Your task to perform on an android device: Go to ESPN.com Image 0: 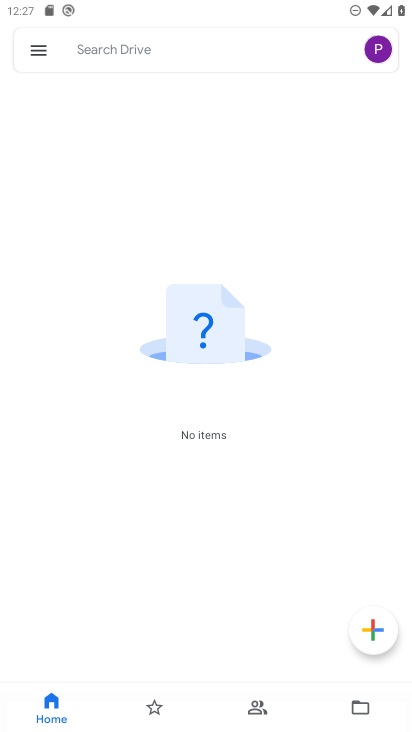
Step 0: press home button
Your task to perform on an android device: Go to ESPN.com Image 1: 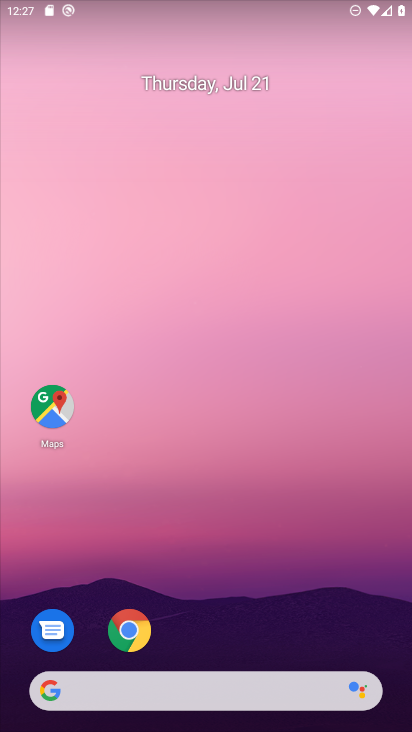
Step 1: drag from (183, 648) to (255, 174)
Your task to perform on an android device: Go to ESPN.com Image 2: 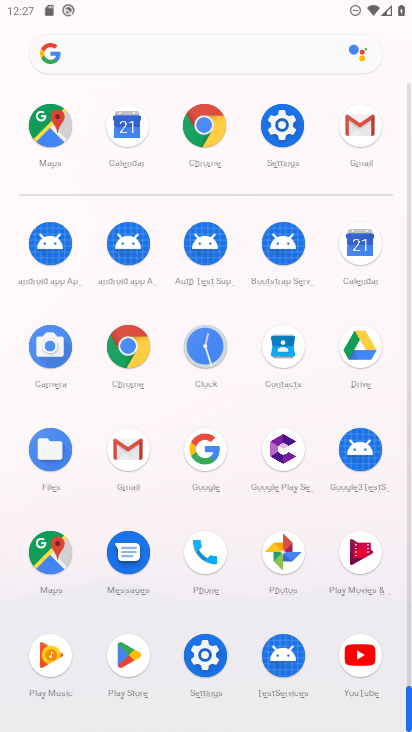
Step 2: click (195, 122)
Your task to perform on an android device: Go to ESPN.com Image 3: 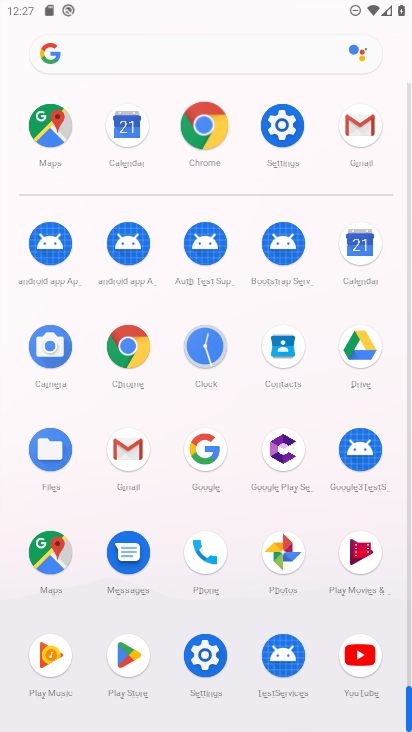
Step 3: click (195, 122)
Your task to perform on an android device: Go to ESPN.com Image 4: 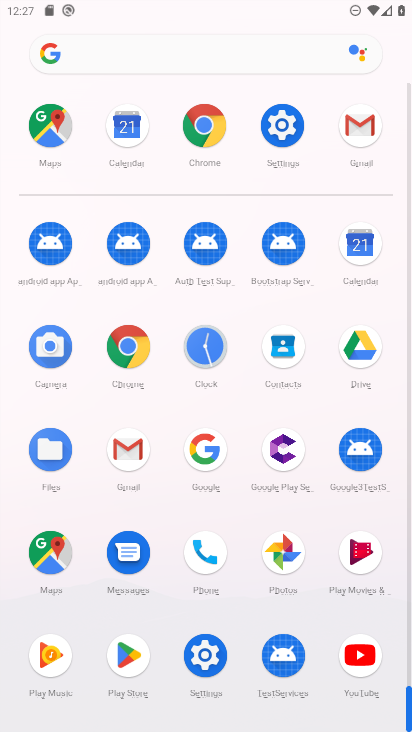
Step 4: click (210, 121)
Your task to perform on an android device: Go to ESPN.com Image 5: 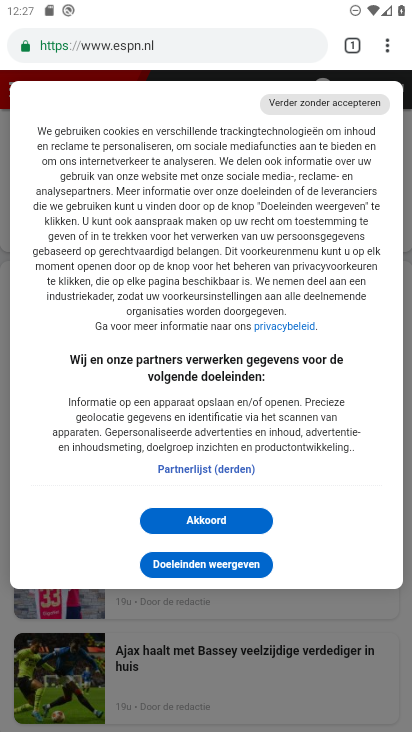
Step 5: task complete